Your task to perform on an android device: turn pop-ups off in chrome Image 0: 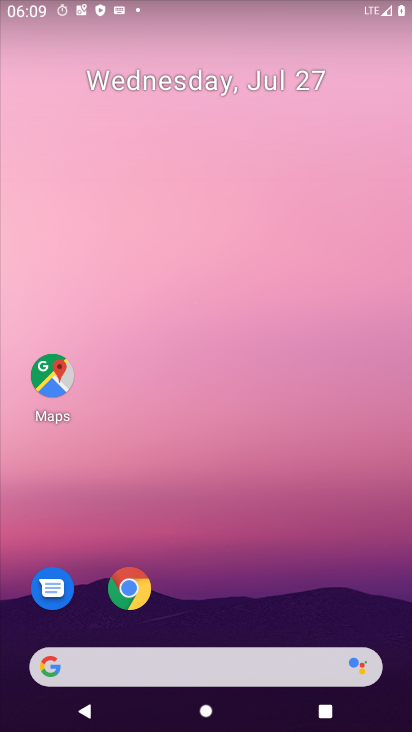
Step 0: drag from (281, 615) to (364, 0)
Your task to perform on an android device: turn pop-ups off in chrome Image 1: 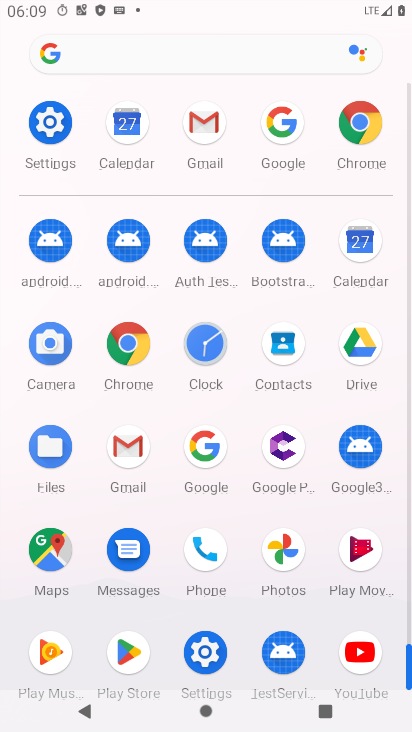
Step 1: click (120, 341)
Your task to perform on an android device: turn pop-ups off in chrome Image 2: 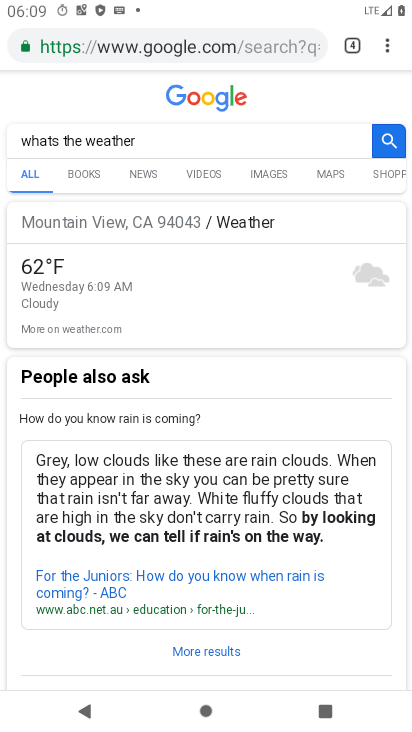
Step 2: click (384, 41)
Your task to perform on an android device: turn pop-ups off in chrome Image 3: 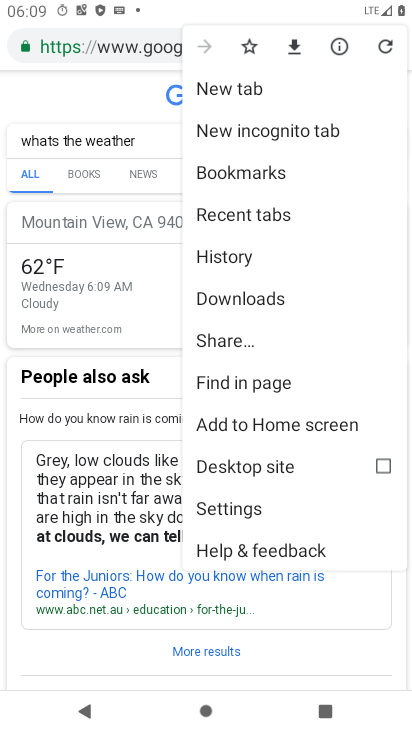
Step 3: click (225, 497)
Your task to perform on an android device: turn pop-ups off in chrome Image 4: 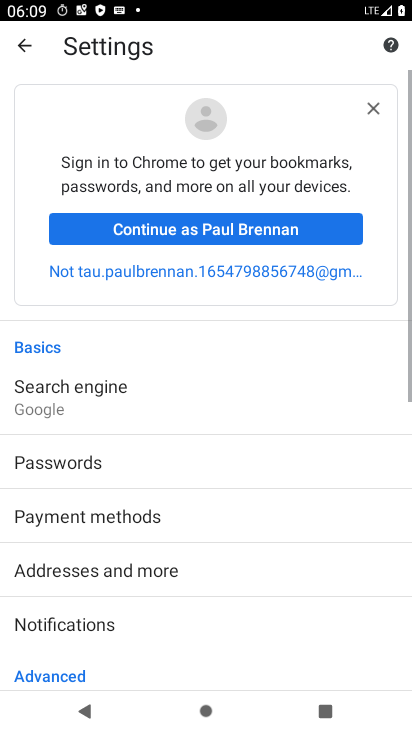
Step 4: drag from (107, 641) to (125, 212)
Your task to perform on an android device: turn pop-ups off in chrome Image 5: 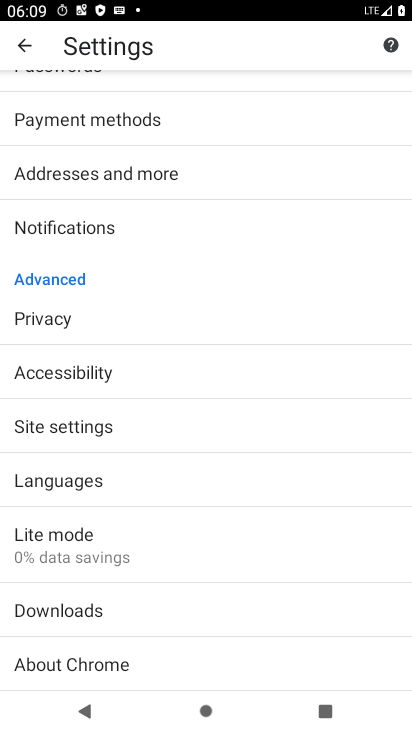
Step 5: click (80, 430)
Your task to perform on an android device: turn pop-ups off in chrome Image 6: 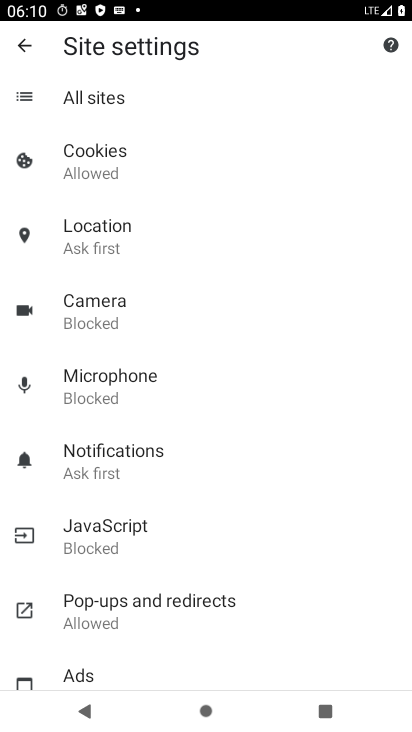
Step 6: click (148, 625)
Your task to perform on an android device: turn pop-ups off in chrome Image 7: 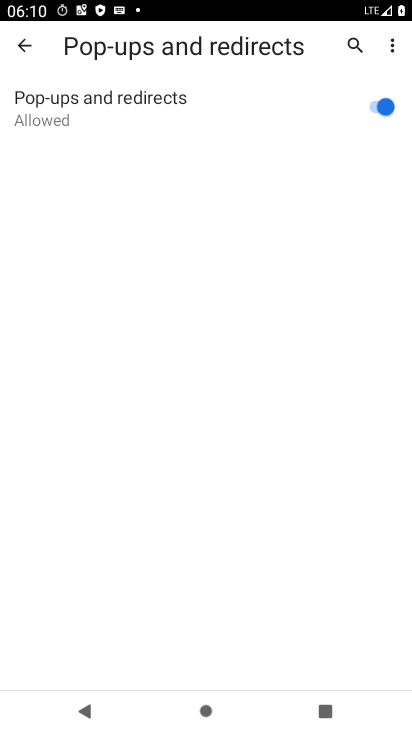
Step 7: click (390, 98)
Your task to perform on an android device: turn pop-ups off in chrome Image 8: 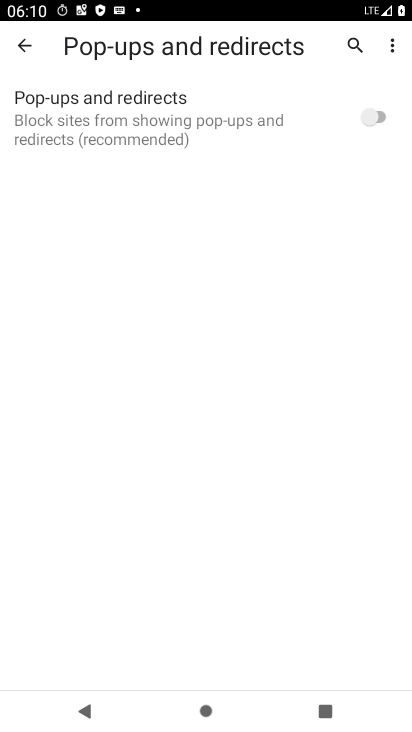
Step 8: task complete